Your task to perform on an android device: turn on javascript in the chrome app Image 0: 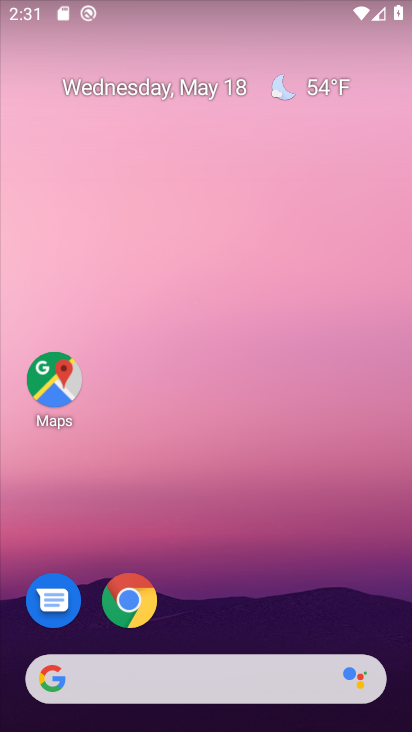
Step 0: click (143, 607)
Your task to perform on an android device: turn on javascript in the chrome app Image 1: 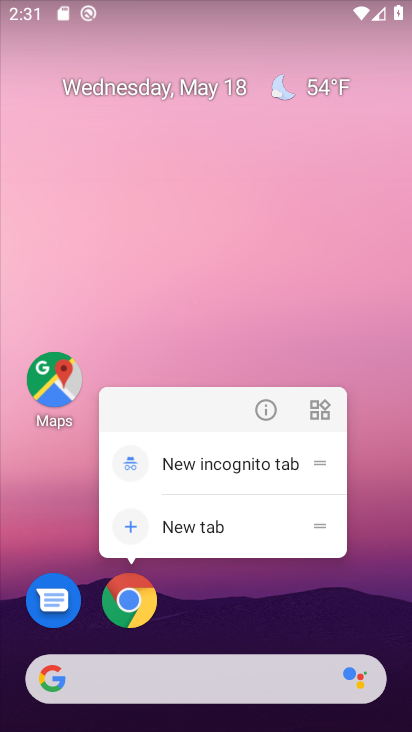
Step 1: click (143, 603)
Your task to perform on an android device: turn on javascript in the chrome app Image 2: 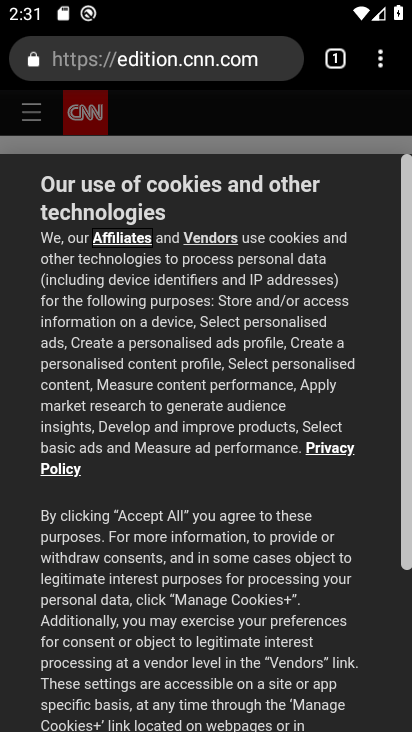
Step 2: click (383, 60)
Your task to perform on an android device: turn on javascript in the chrome app Image 3: 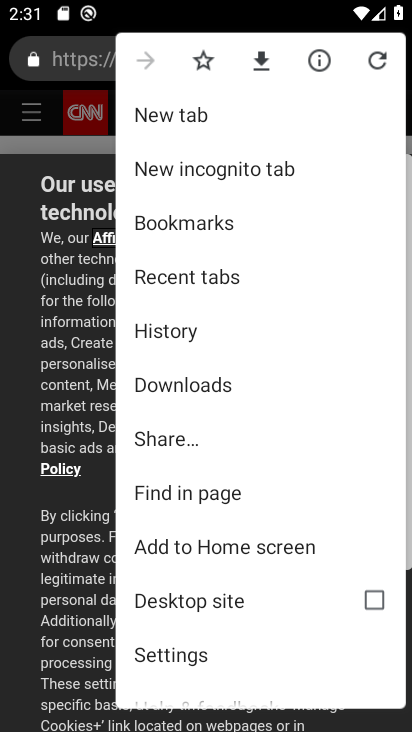
Step 3: drag from (188, 667) to (245, 399)
Your task to perform on an android device: turn on javascript in the chrome app Image 4: 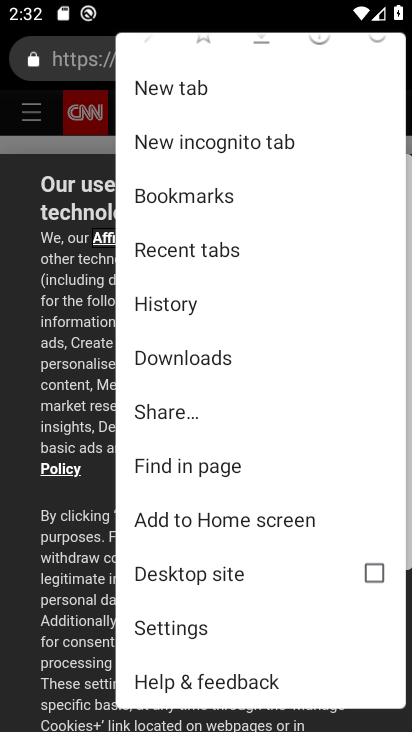
Step 4: click (194, 628)
Your task to perform on an android device: turn on javascript in the chrome app Image 5: 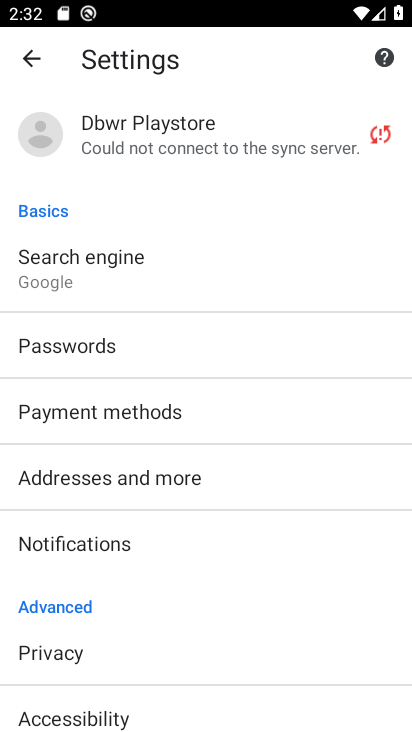
Step 5: drag from (132, 588) to (183, 363)
Your task to perform on an android device: turn on javascript in the chrome app Image 6: 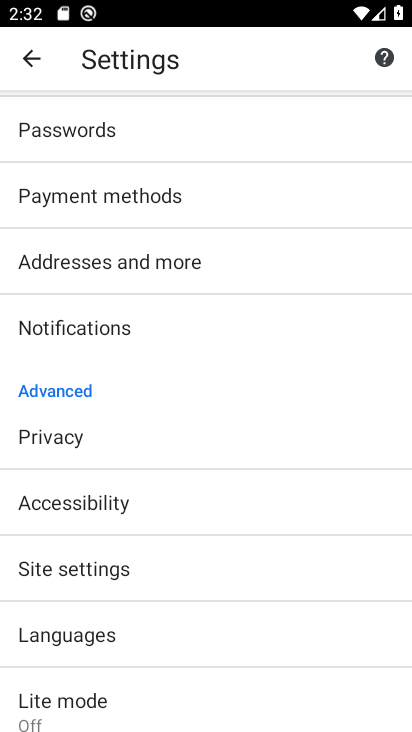
Step 6: click (111, 564)
Your task to perform on an android device: turn on javascript in the chrome app Image 7: 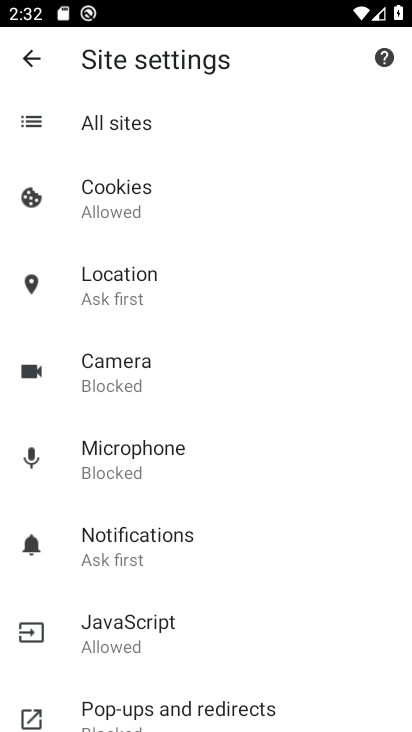
Step 7: click (97, 639)
Your task to perform on an android device: turn on javascript in the chrome app Image 8: 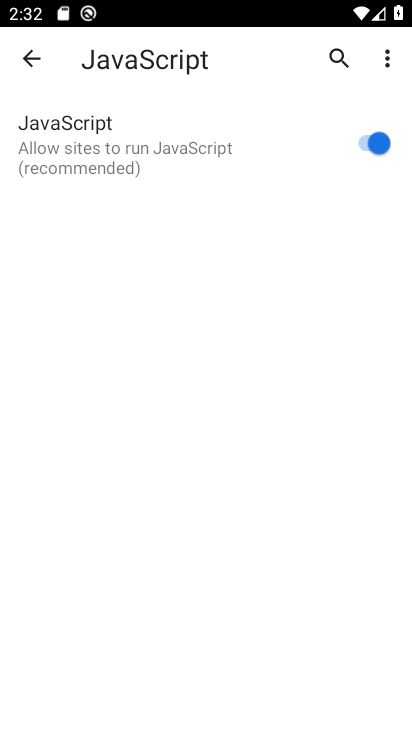
Step 8: task complete